Your task to perform on an android device: open a bookmark in the chrome app Image 0: 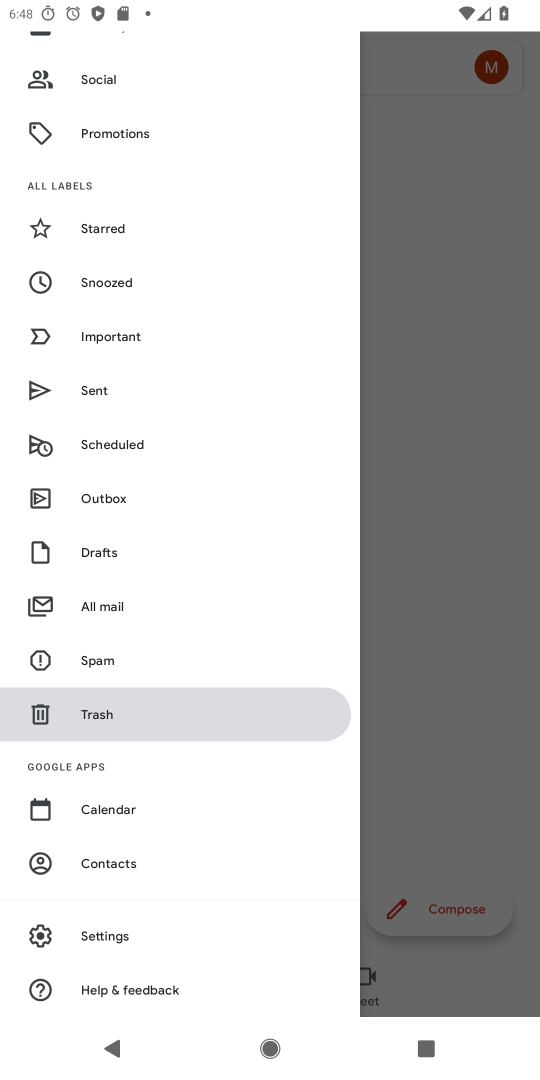
Step 0: press home button
Your task to perform on an android device: open a bookmark in the chrome app Image 1: 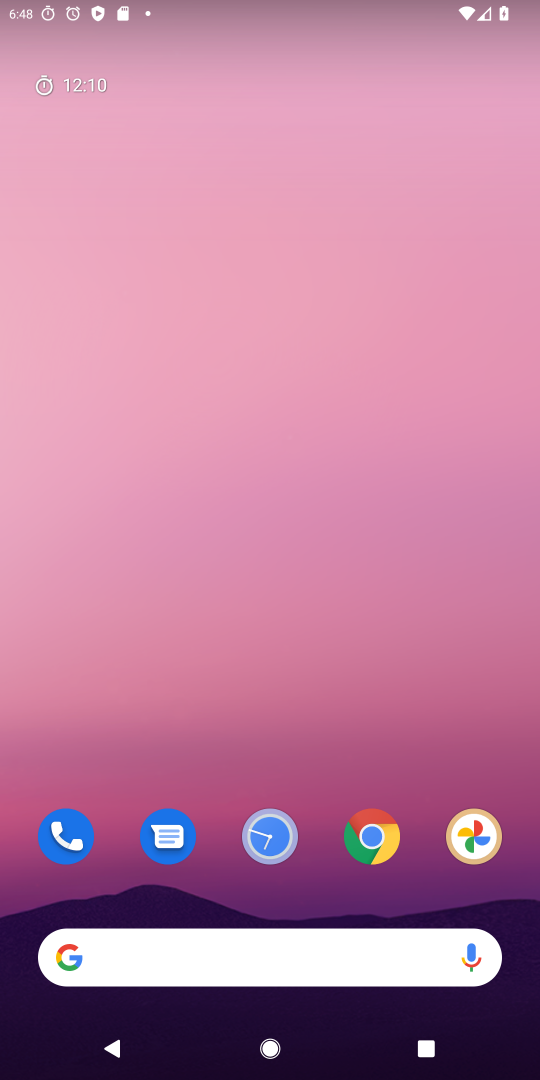
Step 1: drag from (312, 763) to (384, 118)
Your task to perform on an android device: open a bookmark in the chrome app Image 2: 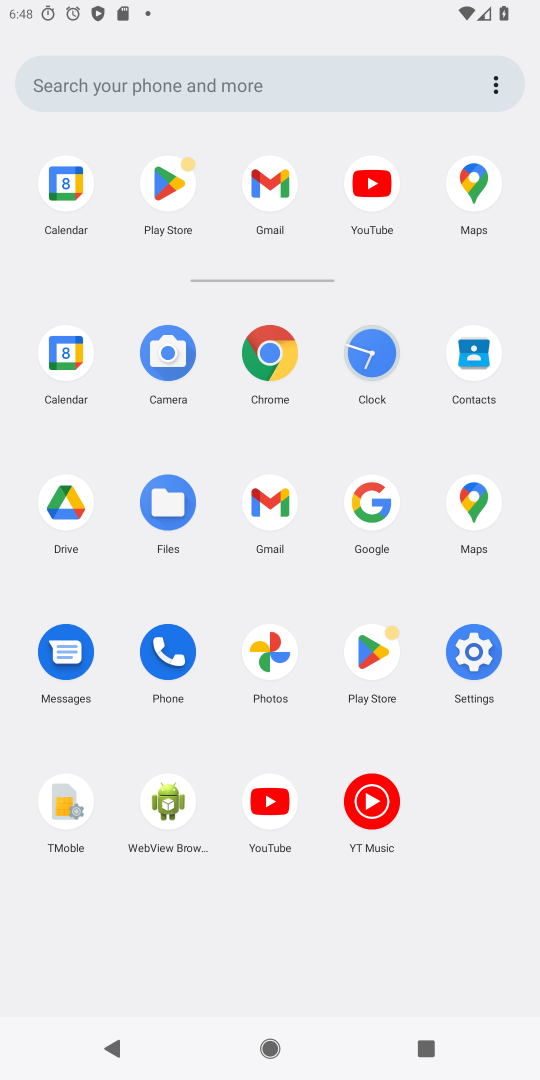
Step 2: click (266, 353)
Your task to perform on an android device: open a bookmark in the chrome app Image 3: 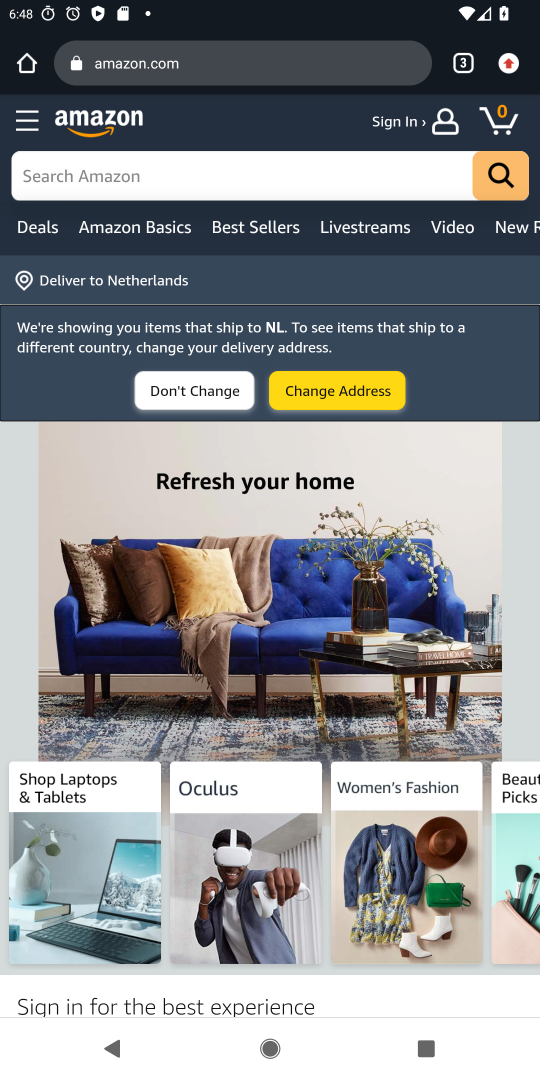
Step 3: click (513, 61)
Your task to perform on an android device: open a bookmark in the chrome app Image 4: 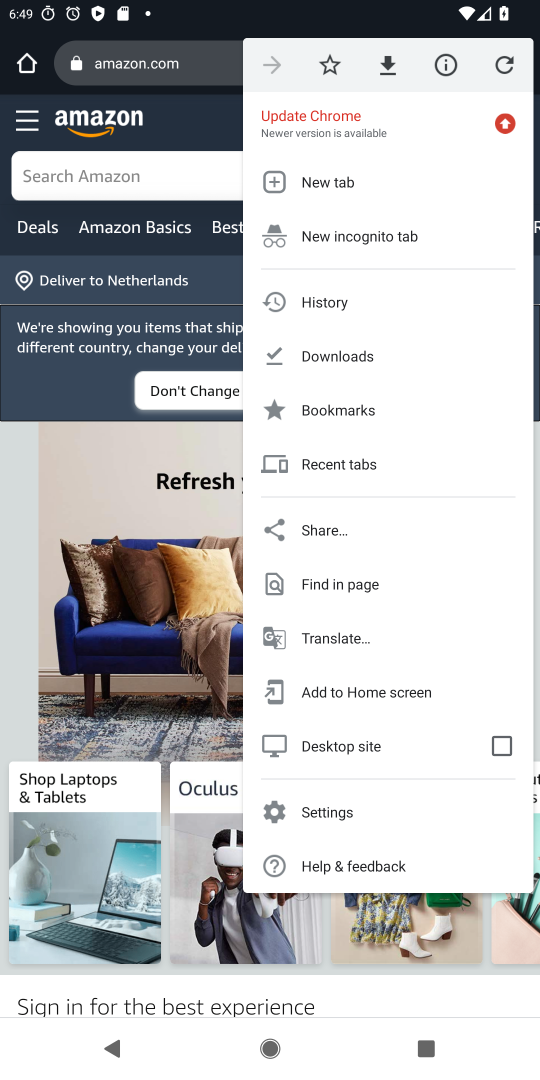
Step 4: click (375, 417)
Your task to perform on an android device: open a bookmark in the chrome app Image 5: 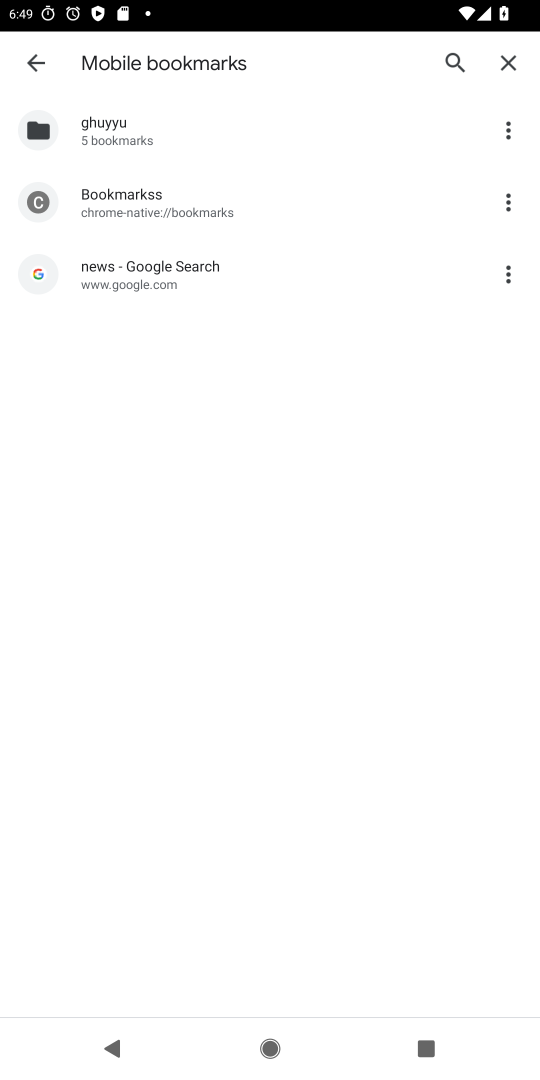
Step 5: click (277, 205)
Your task to perform on an android device: open a bookmark in the chrome app Image 6: 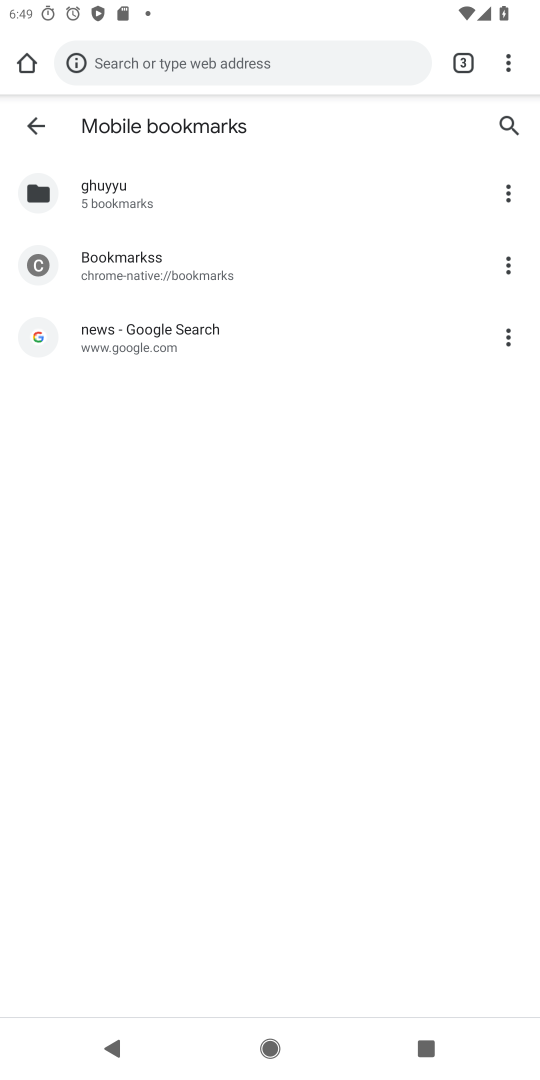
Step 6: click (277, 208)
Your task to perform on an android device: open a bookmark in the chrome app Image 7: 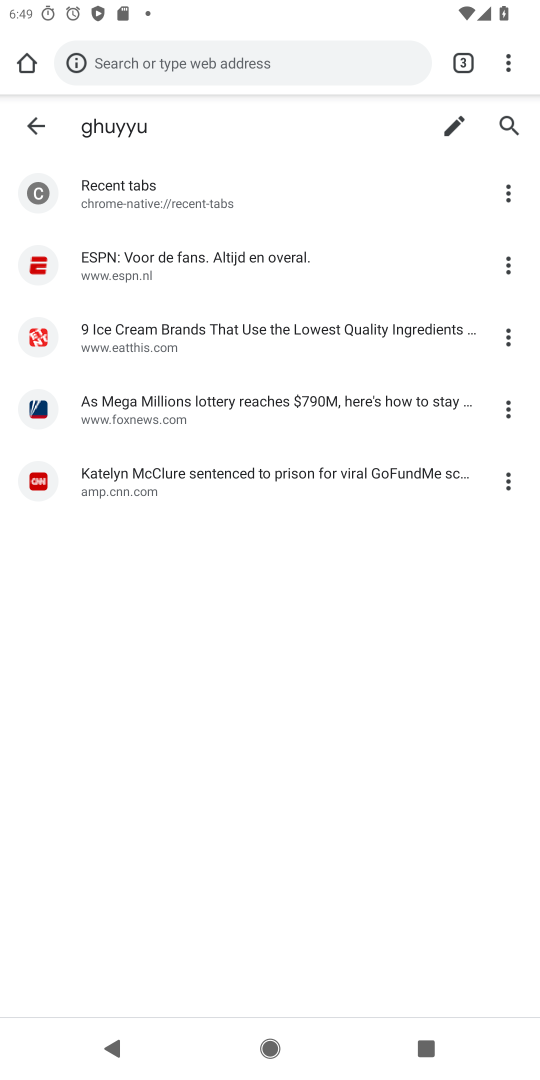
Step 7: click (262, 279)
Your task to perform on an android device: open a bookmark in the chrome app Image 8: 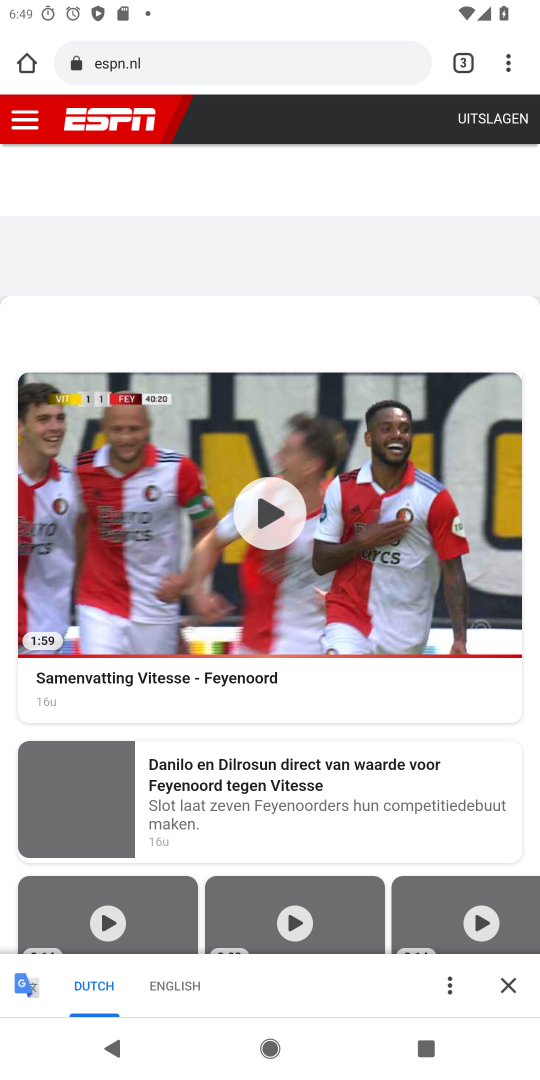
Step 8: task complete